Your task to perform on an android device: find photos in the google photos app Image 0: 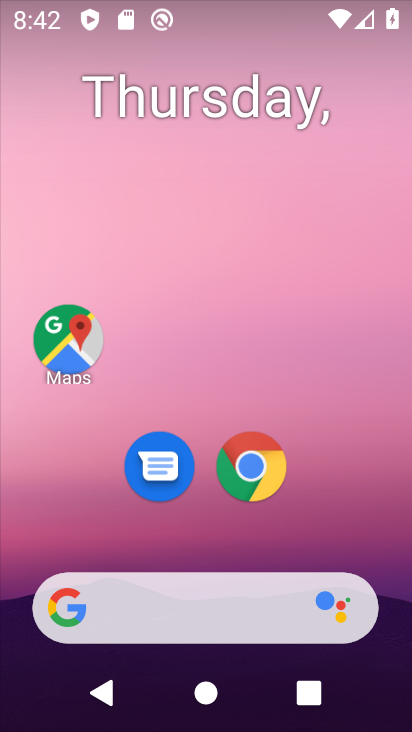
Step 0: drag from (171, 603) to (241, 143)
Your task to perform on an android device: find photos in the google photos app Image 1: 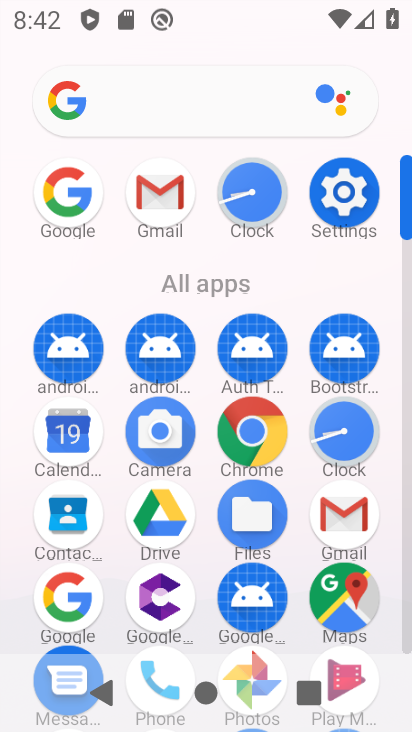
Step 1: drag from (213, 544) to (298, 231)
Your task to perform on an android device: find photos in the google photos app Image 2: 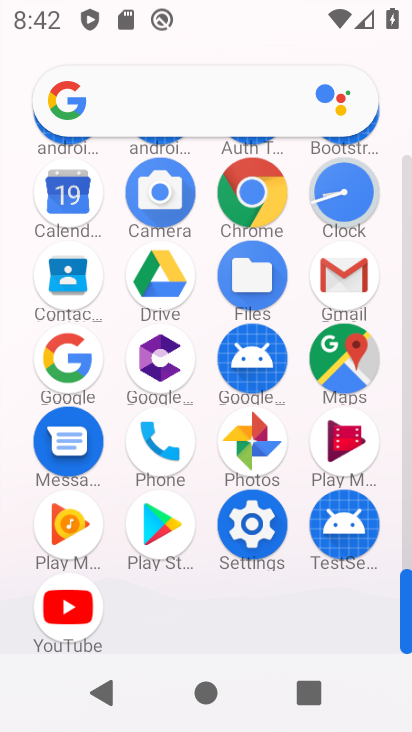
Step 2: click (250, 447)
Your task to perform on an android device: find photos in the google photos app Image 3: 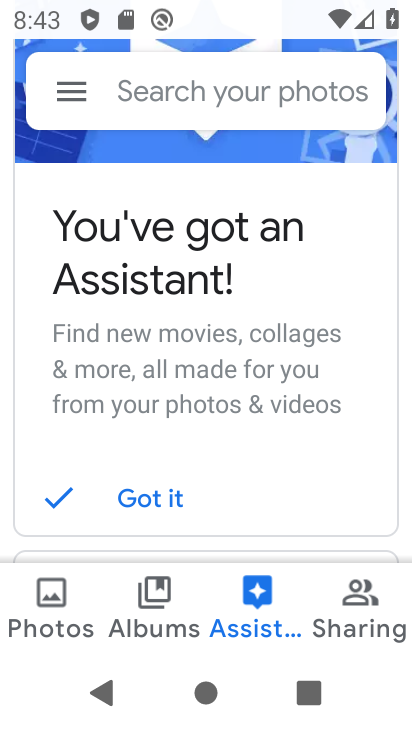
Step 3: click (49, 608)
Your task to perform on an android device: find photos in the google photos app Image 4: 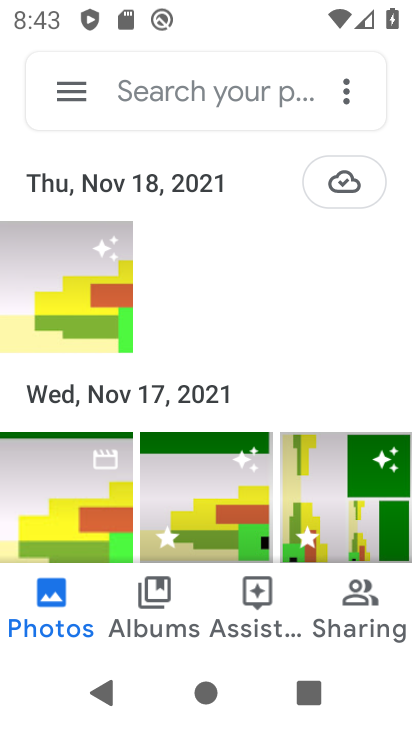
Step 4: task complete